Your task to perform on an android device: check the backup settings in the google photos Image 0: 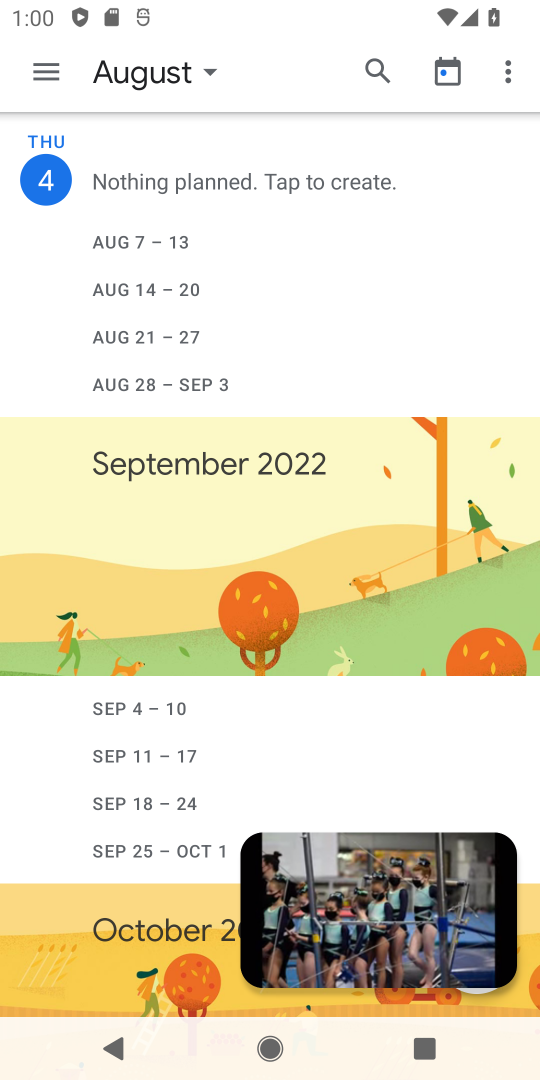
Step 0: press home button
Your task to perform on an android device: check the backup settings in the google photos Image 1: 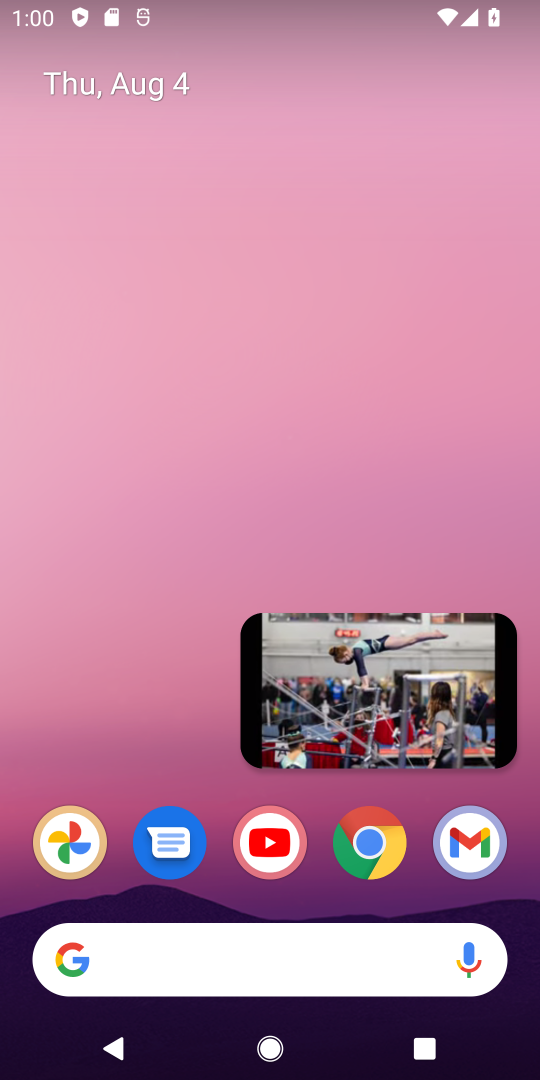
Step 1: click (68, 840)
Your task to perform on an android device: check the backup settings in the google photos Image 2: 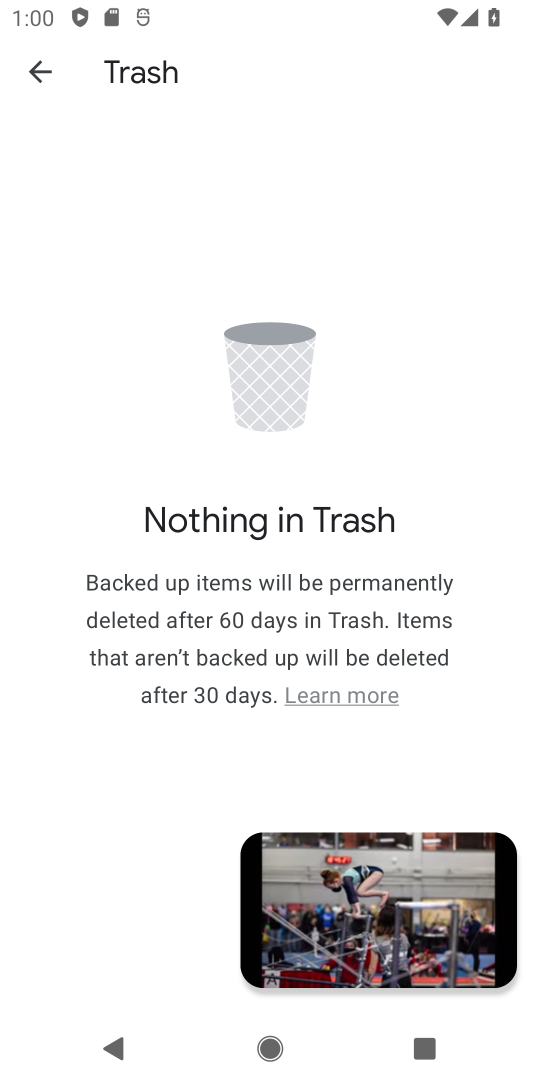
Step 2: click (40, 77)
Your task to perform on an android device: check the backup settings in the google photos Image 3: 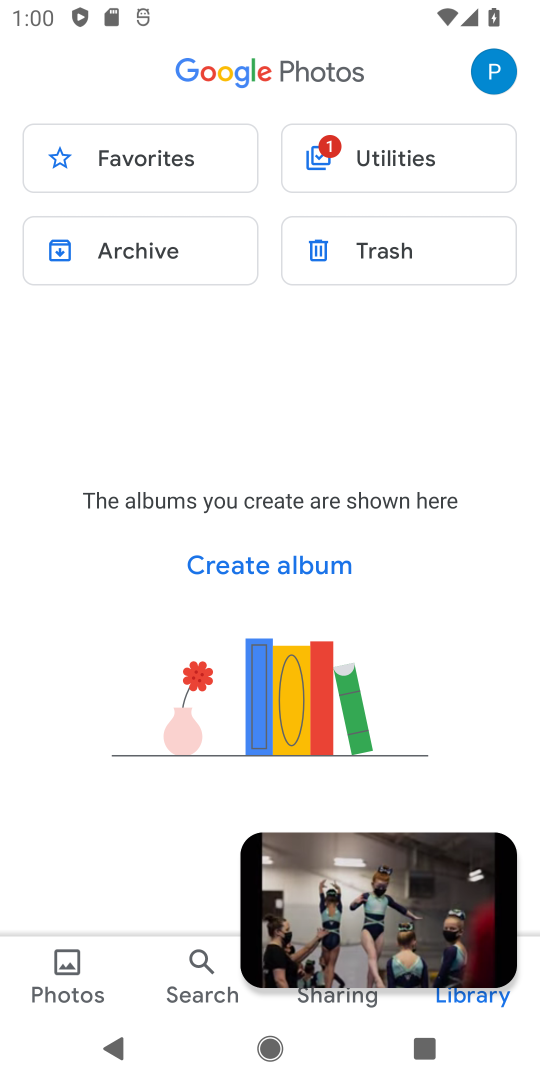
Step 3: click (484, 76)
Your task to perform on an android device: check the backup settings in the google photos Image 4: 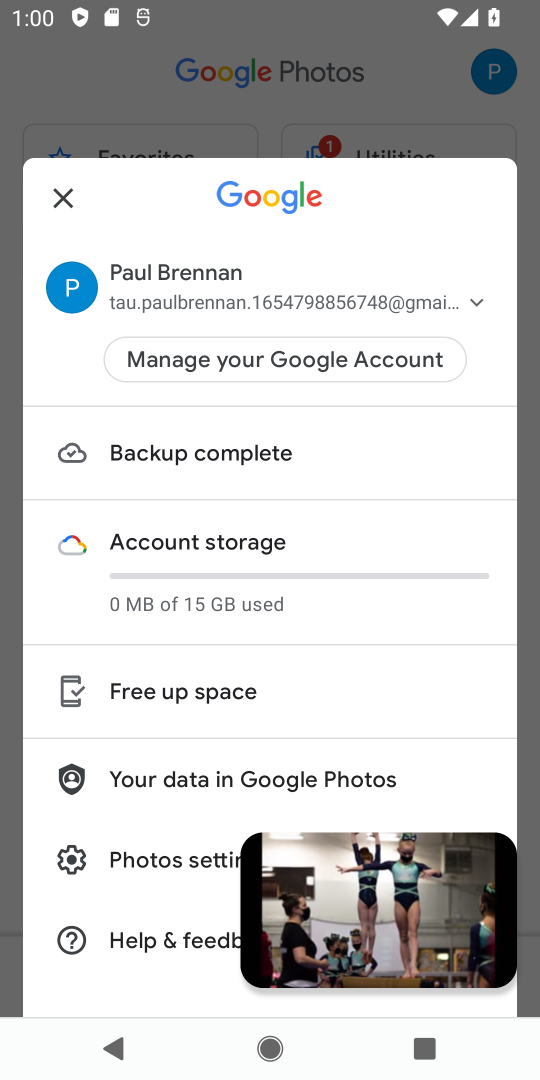
Step 4: click (124, 849)
Your task to perform on an android device: check the backup settings in the google photos Image 5: 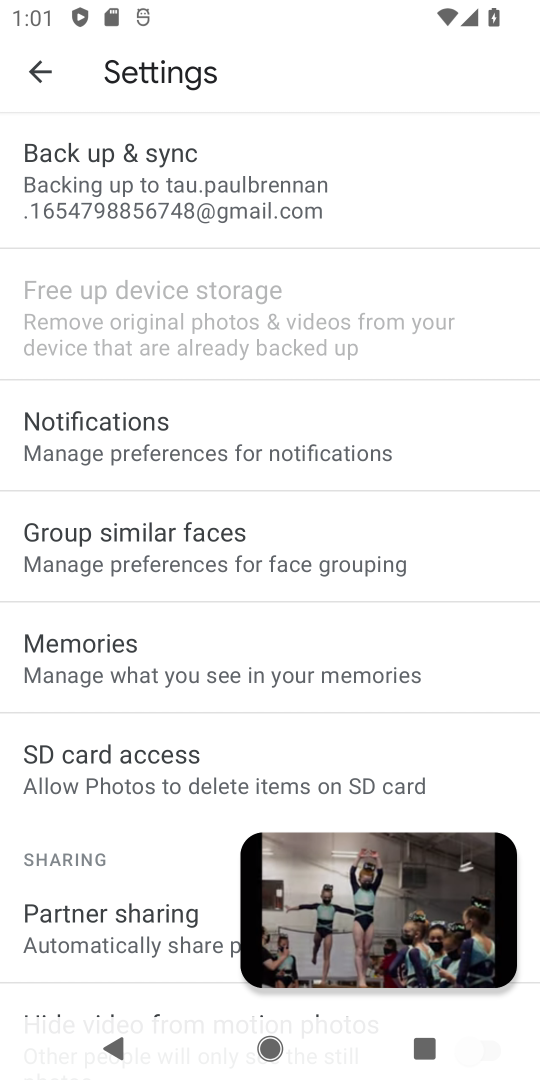
Step 5: click (176, 188)
Your task to perform on an android device: check the backup settings in the google photos Image 6: 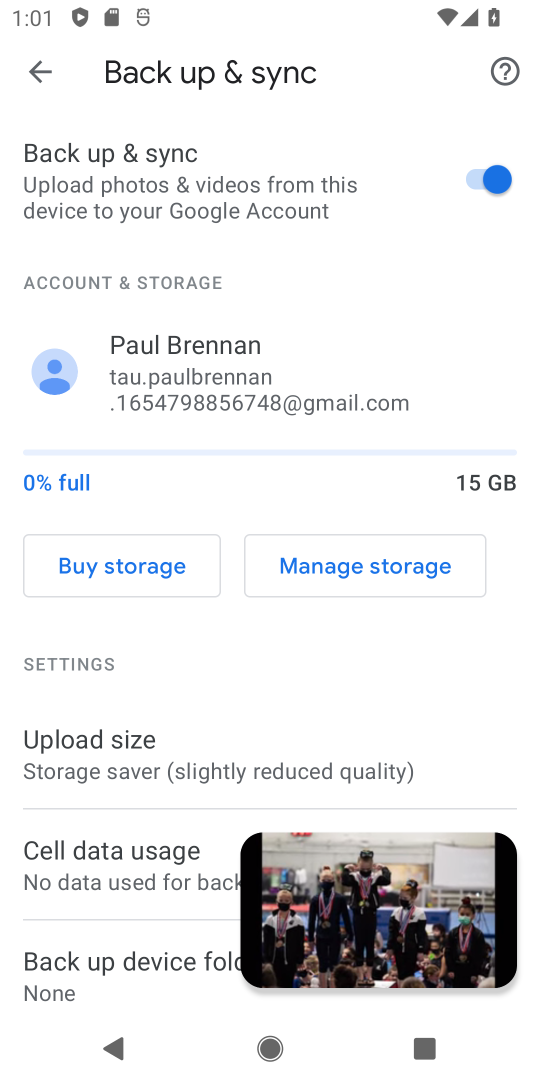
Step 6: task complete